Your task to perform on an android device: allow cookies in the chrome app Image 0: 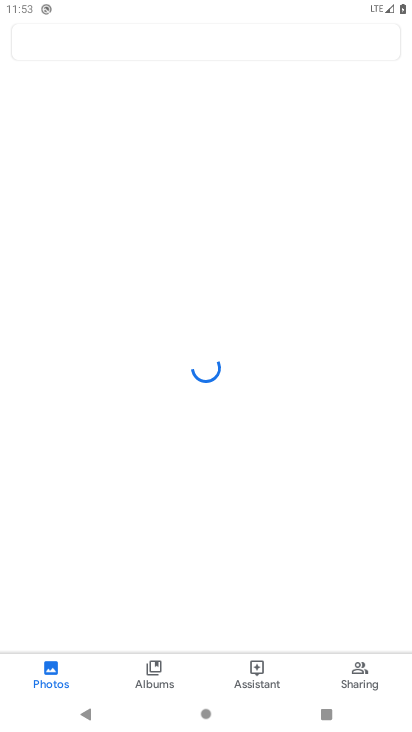
Step 0: press home button
Your task to perform on an android device: allow cookies in the chrome app Image 1: 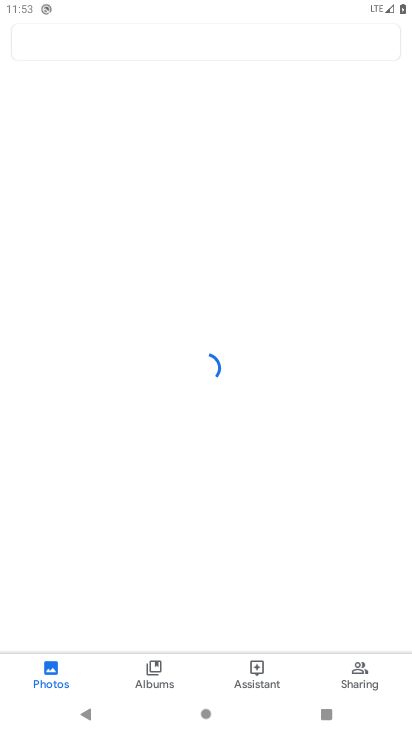
Step 1: press home button
Your task to perform on an android device: allow cookies in the chrome app Image 2: 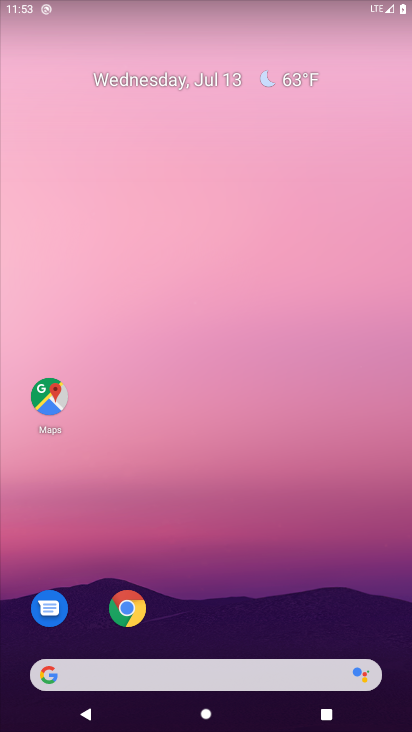
Step 2: drag from (293, 642) to (285, 161)
Your task to perform on an android device: allow cookies in the chrome app Image 3: 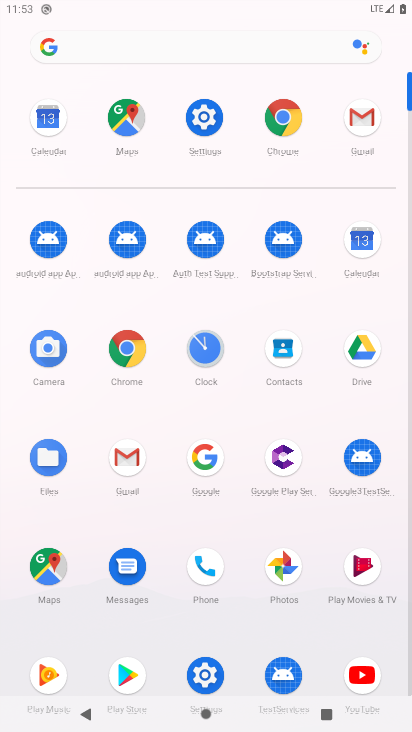
Step 3: click (283, 127)
Your task to perform on an android device: allow cookies in the chrome app Image 4: 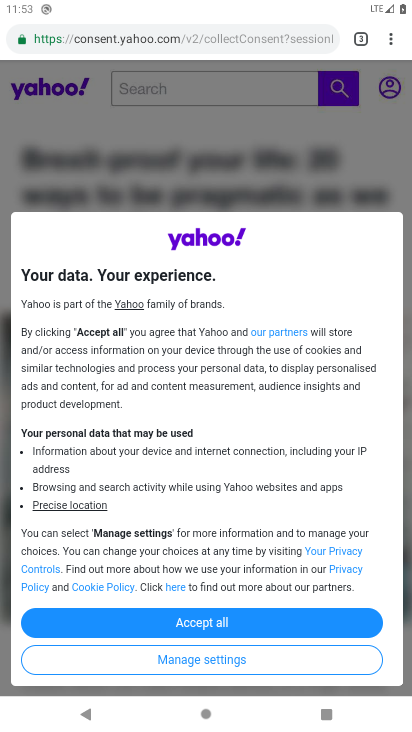
Step 4: drag from (396, 39) to (247, 473)
Your task to perform on an android device: allow cookies in the chrome app Image 5: 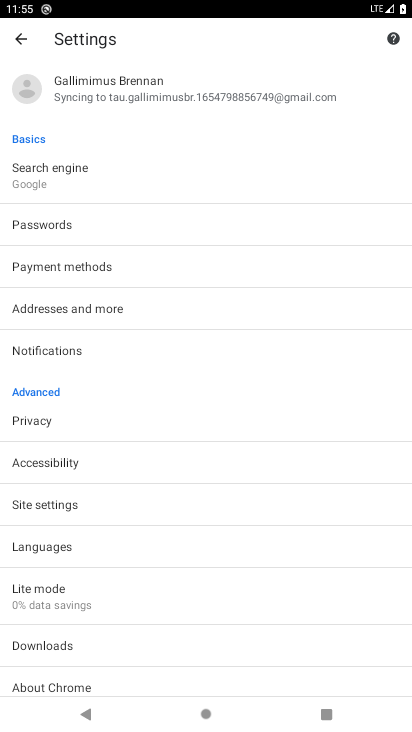
Step 5: click (58, 511)
Your task to perform on an android device: allow cookies in the chrome app Image 6: 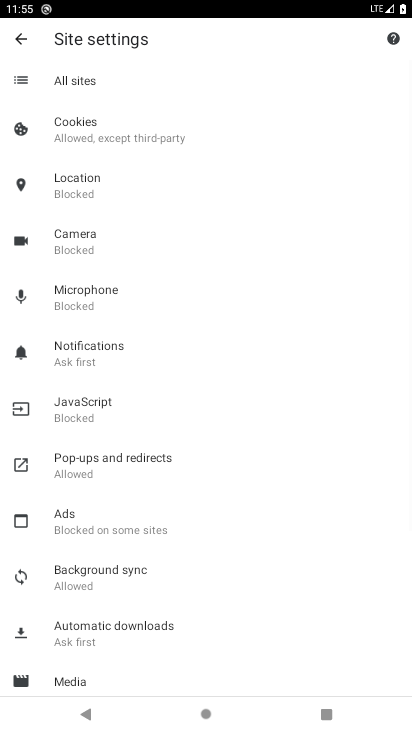
Step 6: click (176, 130)
Your task to perform on an android device: allow cookies in the chrome app Image 7: 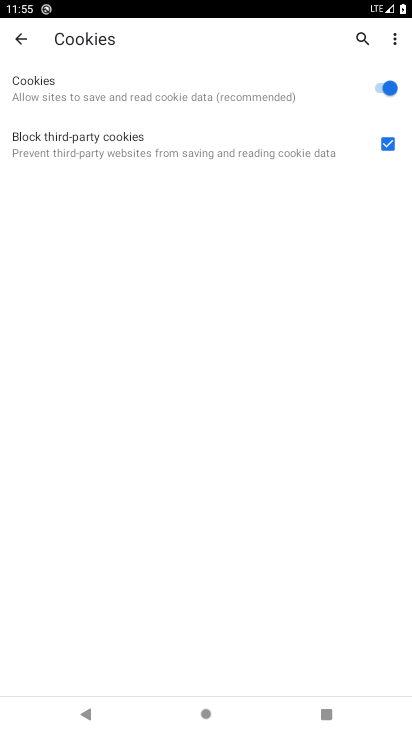
Step 7: task complete